Your task to perform on an android device: toggle wifi Image 0: 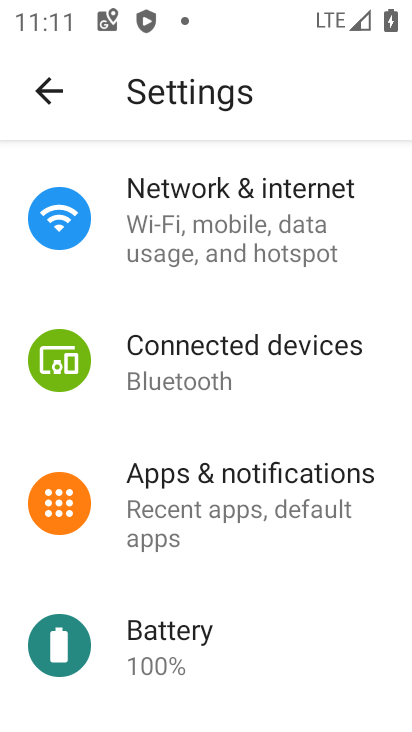
Step 0: click (323, 238)
Your task to perform on an android device: toggle wifi Image 1: 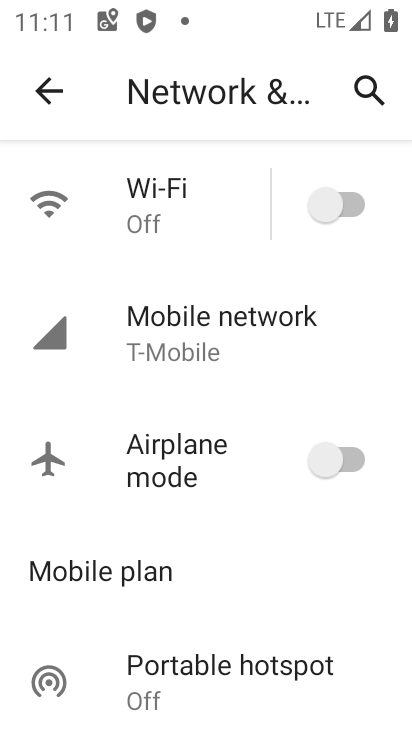
Step 1: click (356, 198)
Your task to perform on an android device: toggle wifi Image 2: 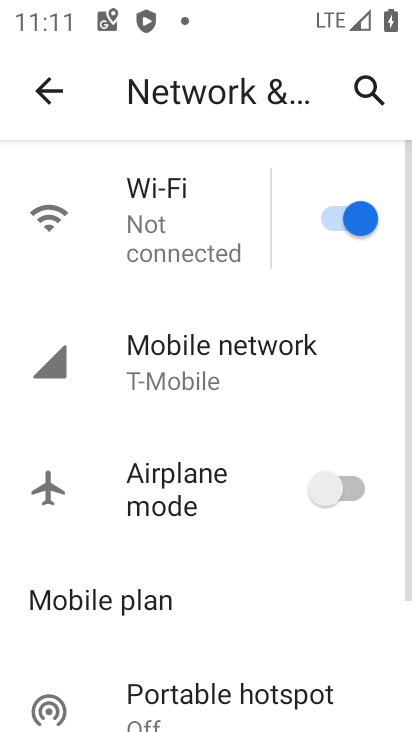
Step 2: task complete